Your task to perform on an android device: install app "Messenger Lite" Image 0: 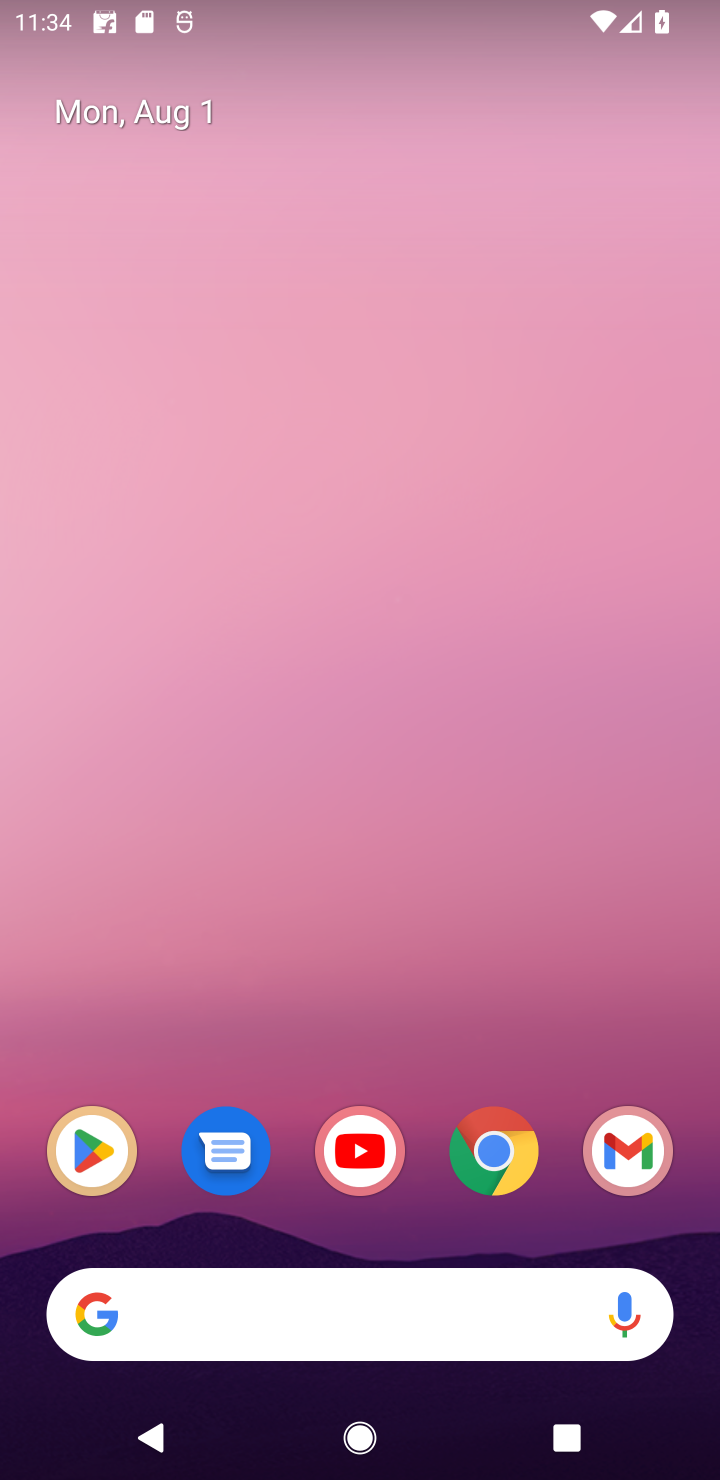
Step 0: click (71, 1164)
Your task to perform on an android device: install app "Messenger Lite" Image 1: 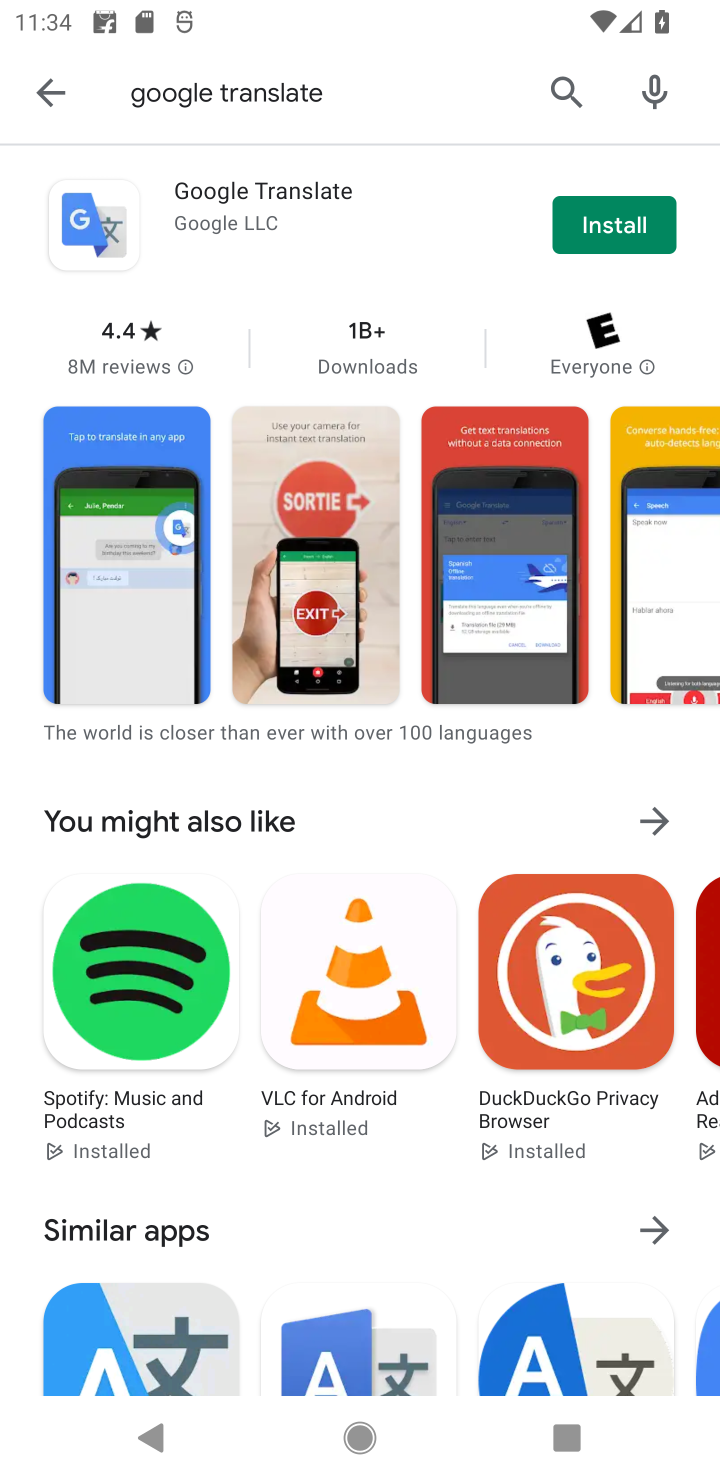
Step 1: click (568, 98)
Your task to perform on an android device: install app "Messenger Lite" Image 2: 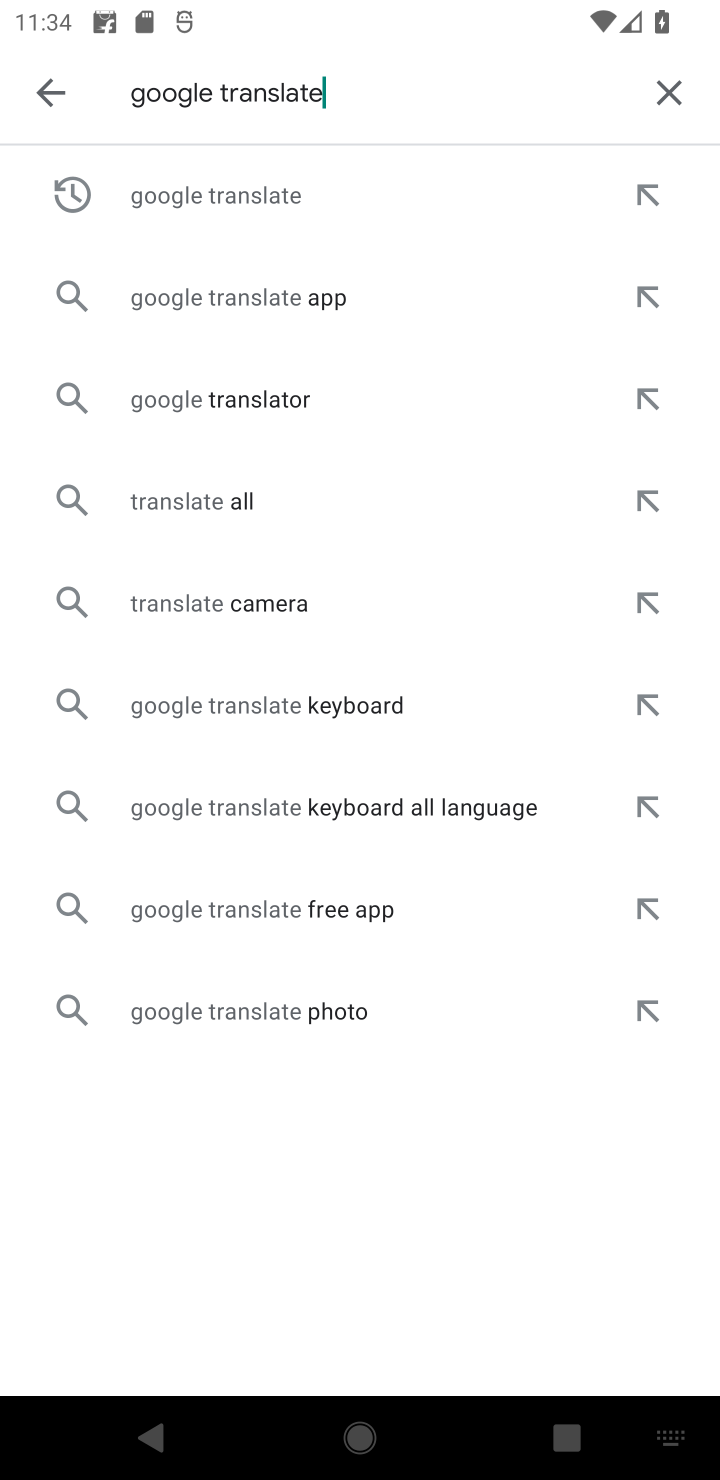
Step 2: click (659, 98)
Your task to perform on an android device: install app "Messenger Lite" Image 3: 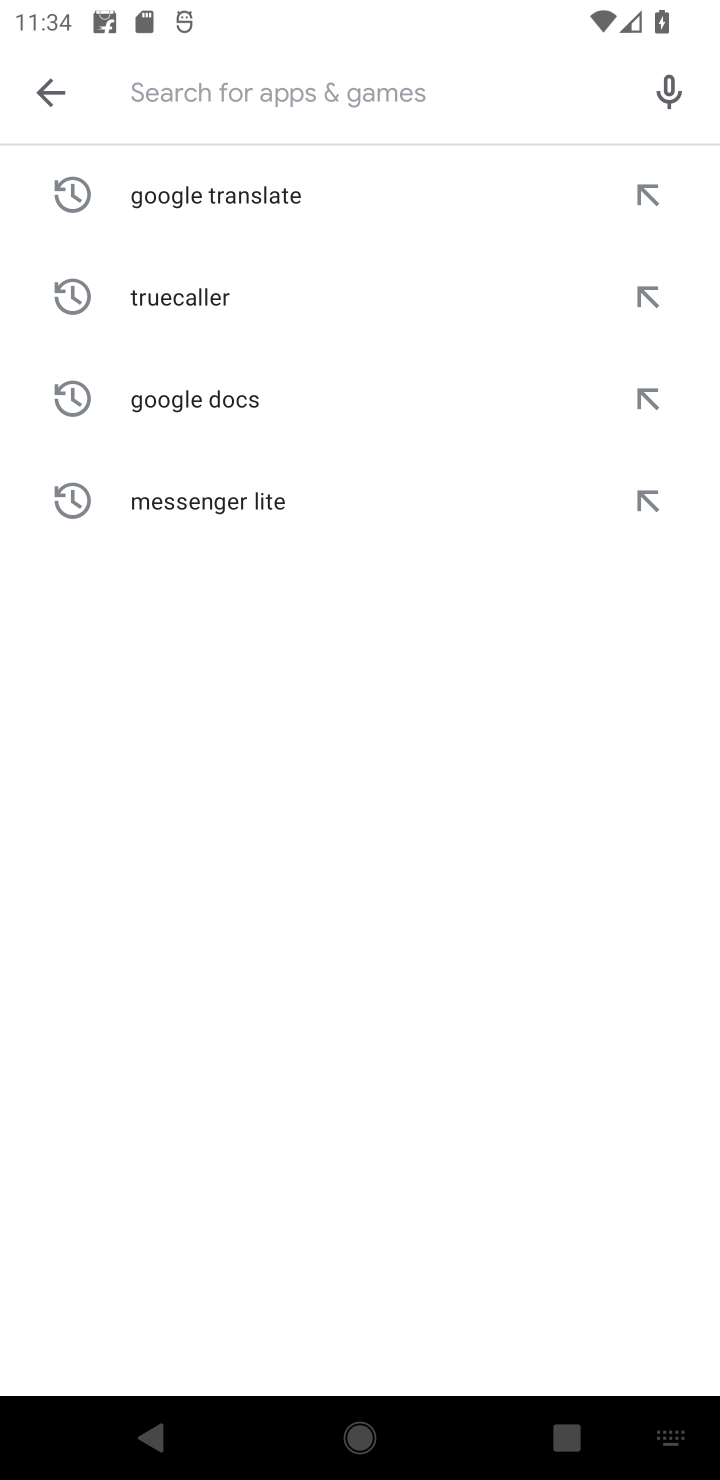
Step 3: type "Messenger Lite"
Your task to perform on an android device: install app "Messenger Lite" Image 4: 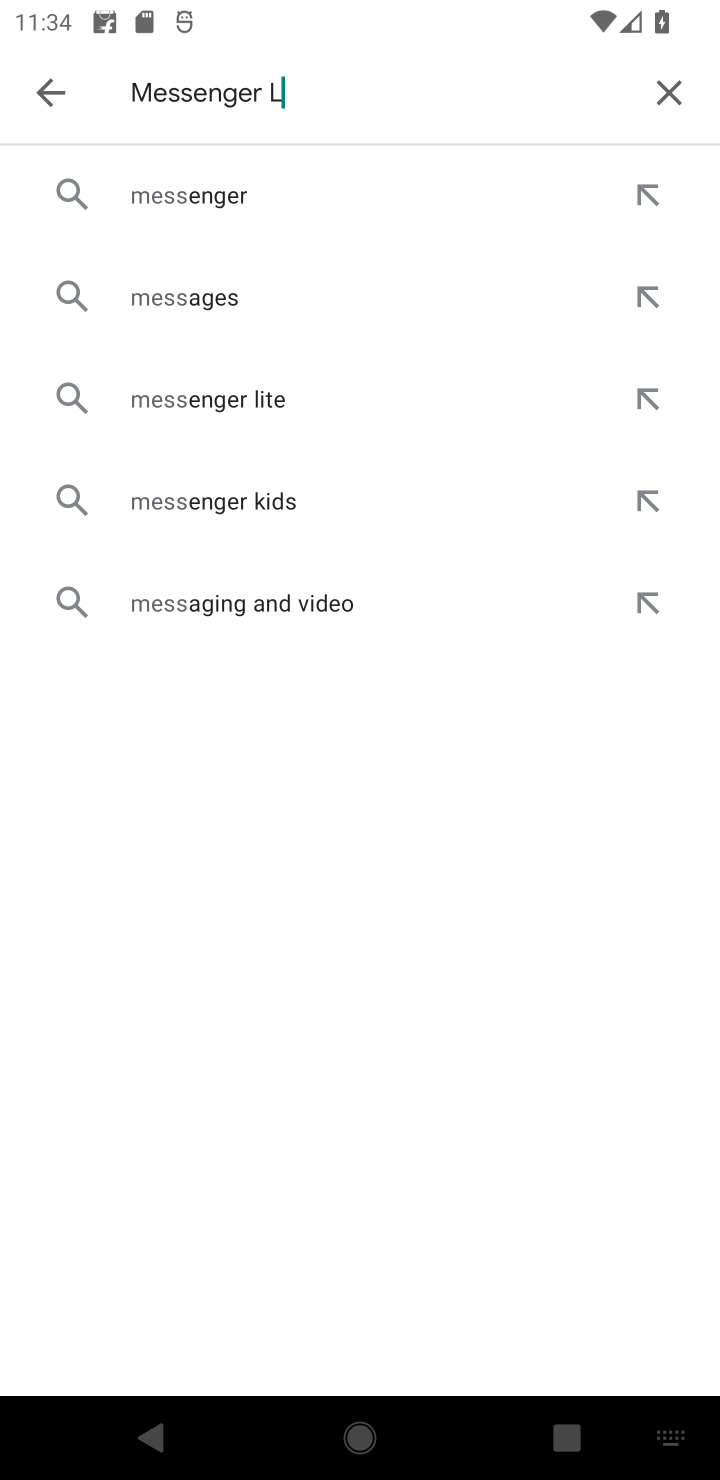
Step 4: type ""
Your task to perform on an android device: install app "Messenger Lite" Image 5: 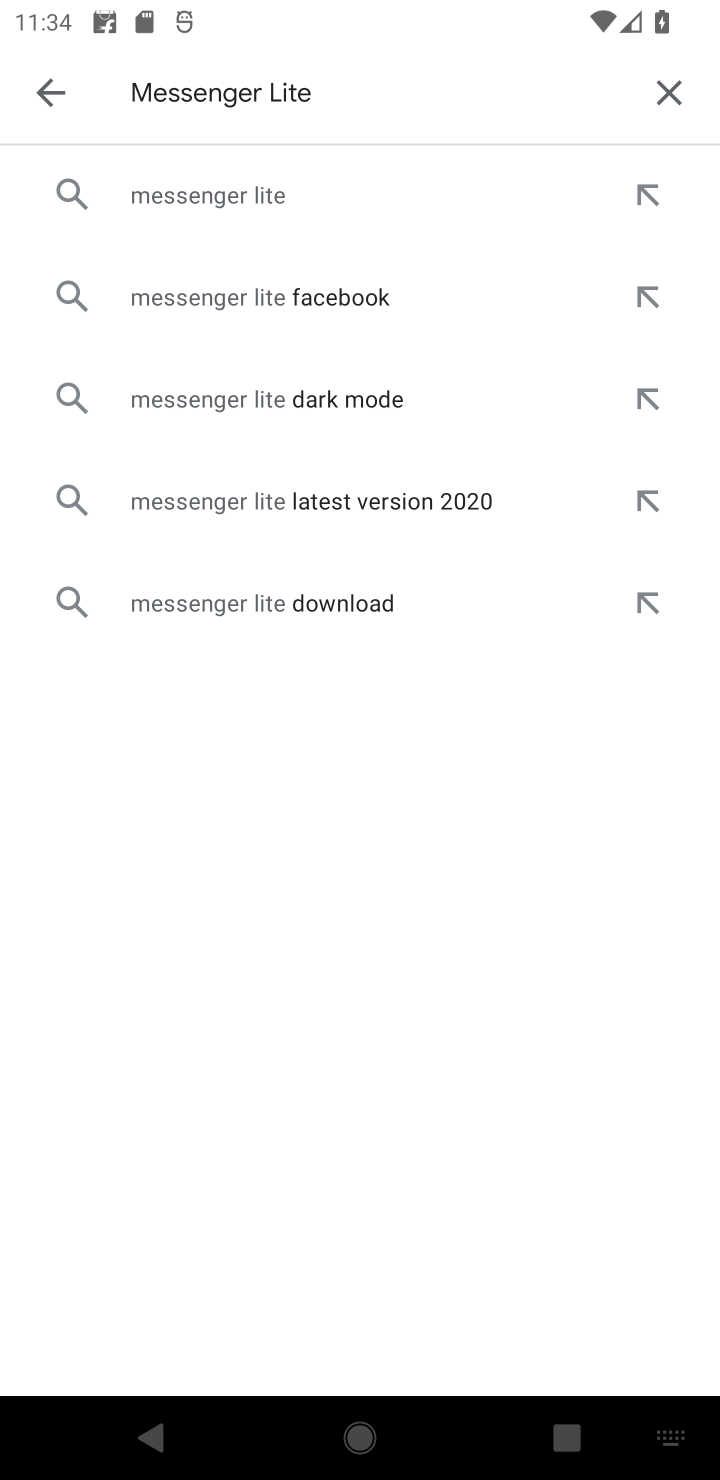
Step 5: click (153, 191)
Your task to perform on an android device: install app "Messenger Lite" Image 6: 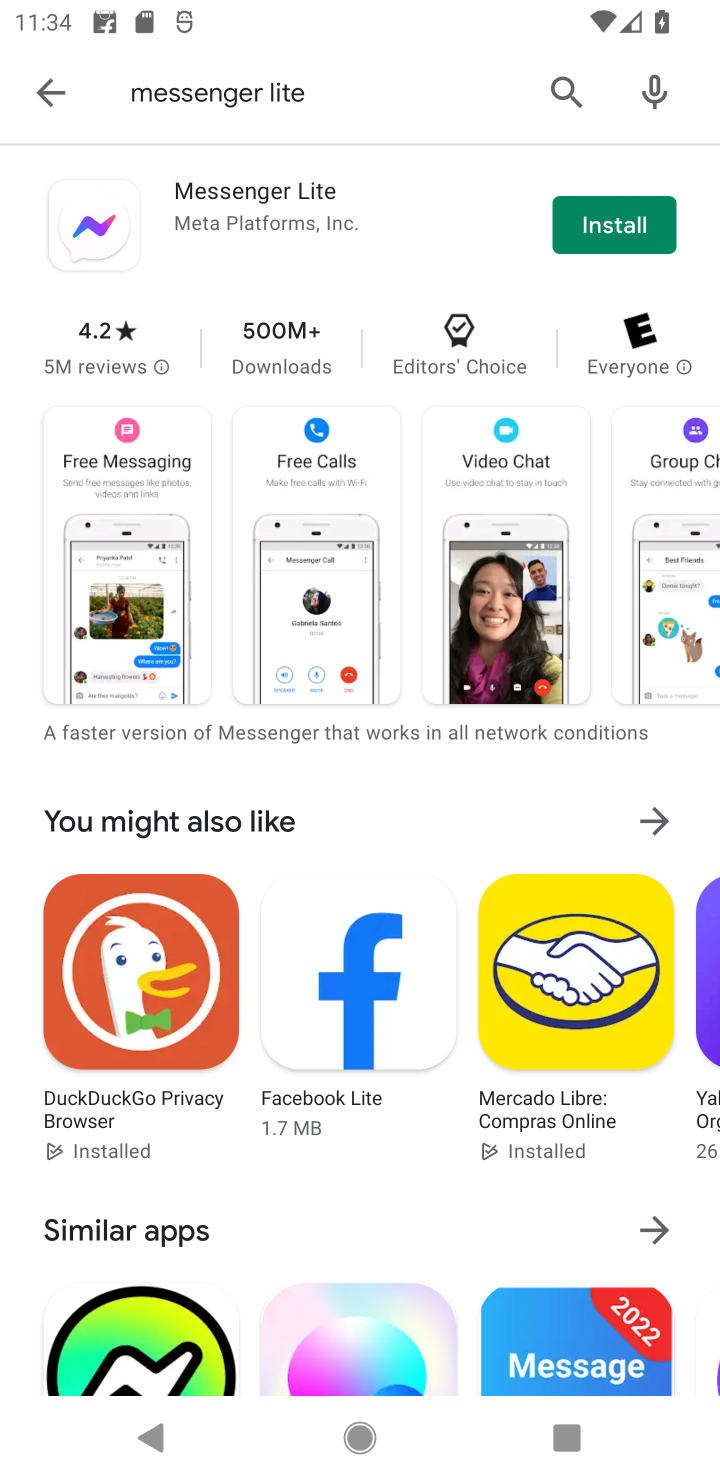
Step 6: click (584, 214)
Your task to perform on an android device: install app "Messenger Lite" Image 7: 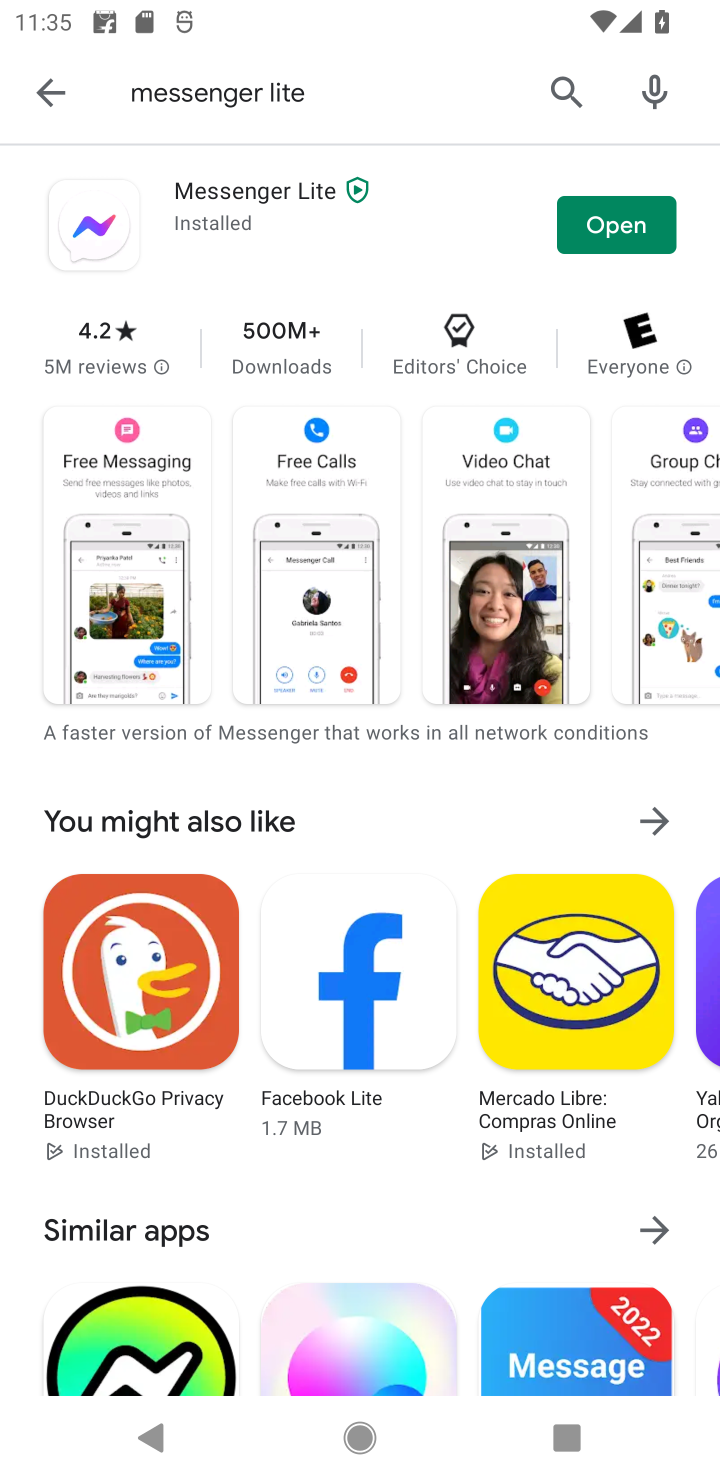
Step 7: task complete